Your task to perform on an android device: empty trash in google photos Image 0: 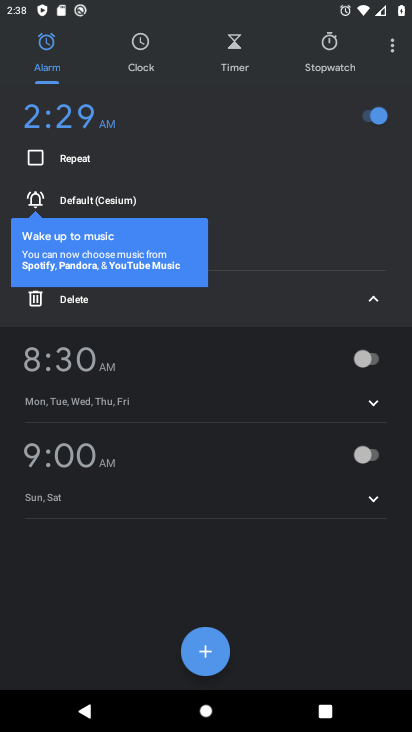
Step 0: press home button
Your task to perform on an android device: empty trash in google photos Image 1: 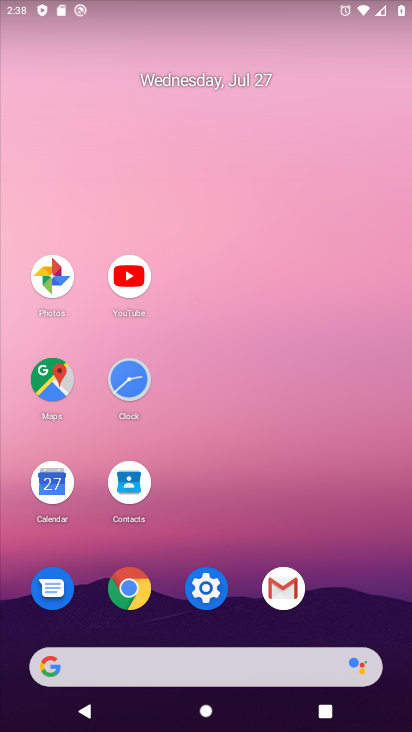
Step 1: click (46, 282)
Your task to perform on an android device: empty trash in google photos Image 2: 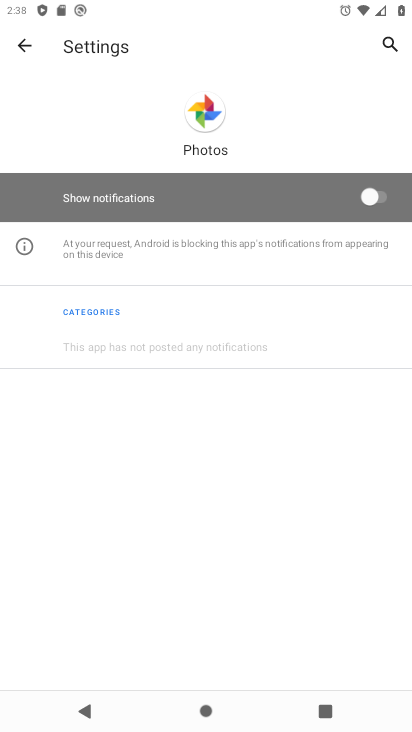
Step 2: click (23, 42)
Your task to perform on an android device: empty trash in google photos Image 3: 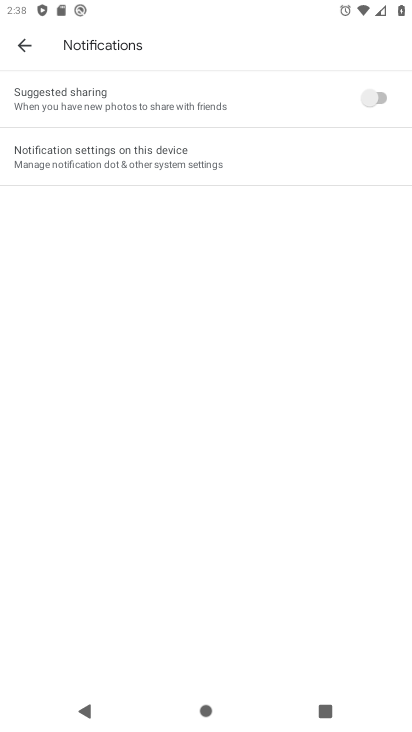
Step 3: click (21, 45)
Your task to perform on an android device: empty trash in google photos Image 4: 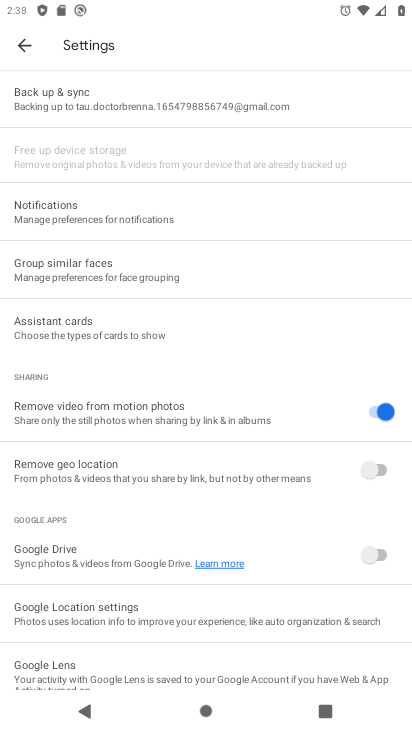
Step 4: click (24, 46)
Your task to perform on an android device: empty trash in google photos Image 5: 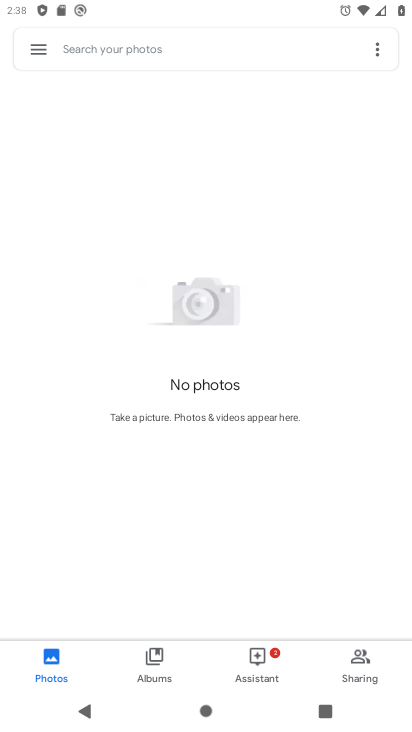
Step 5: click (36, 47)
Your task to perform on an android device: empty trash in google photos Image 6: 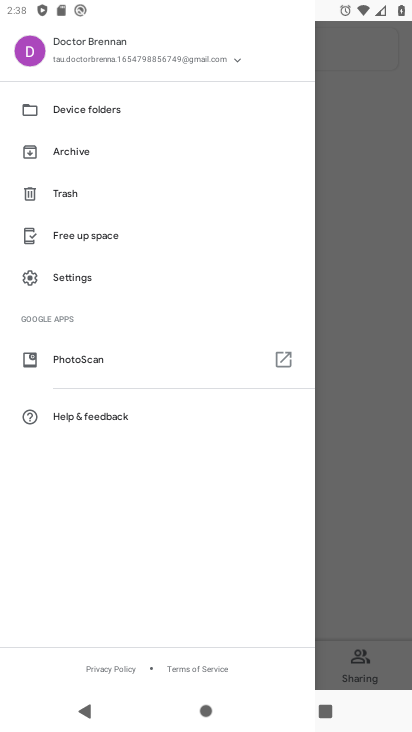
Step 6: click (51, 199)
Your task to perform on an android device: empty trash in google photos Image 7: 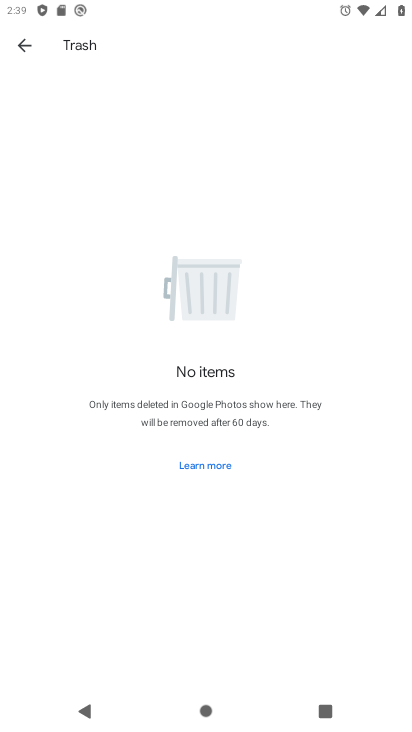
Step 7: task complete